Your task to perform on an android device: Go to Google maps Image 0: 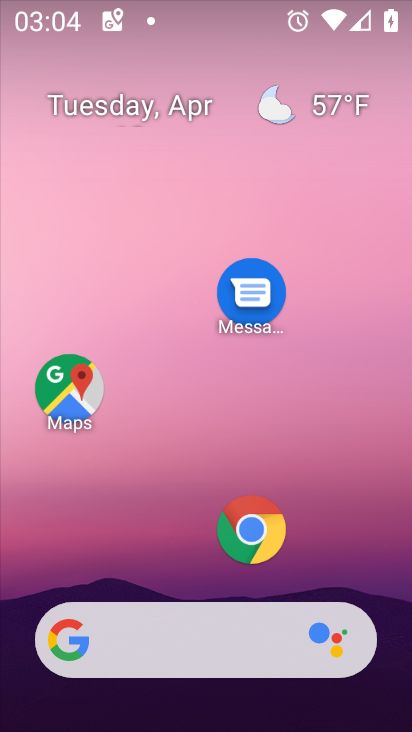
Step 0: drag from (170, 521) to (175, 76)
Your task to perform on an android device: Go to Google maps Image 1: 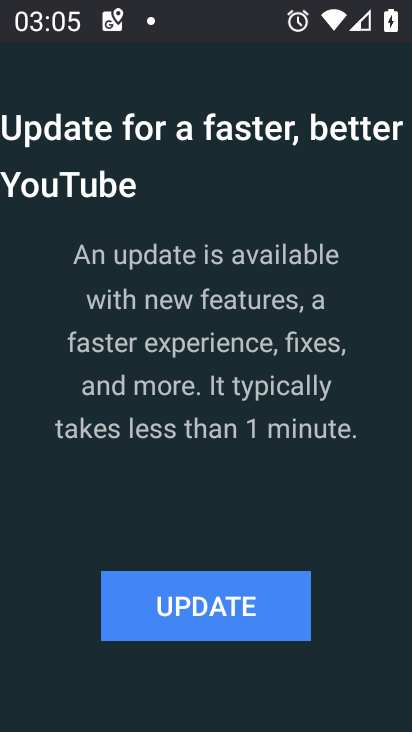
Step 1: press home button
Your task to perform on an android device: Go to Google maps Image 2: 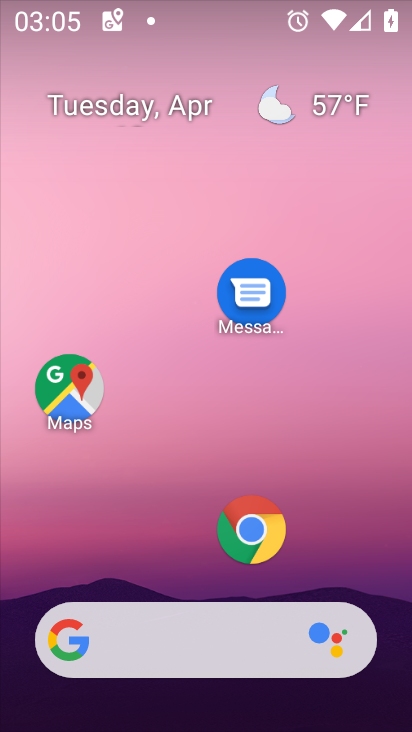
Step 2: click (66, 398)
Your task to perform on an android device: Go to Google maps Image 3: 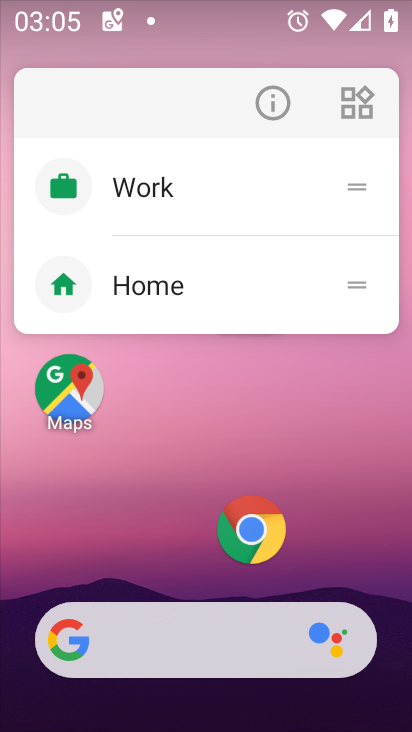
Step 3: click (79, 405)
Your task to perform on an android device: Go to Google maps Image 4: 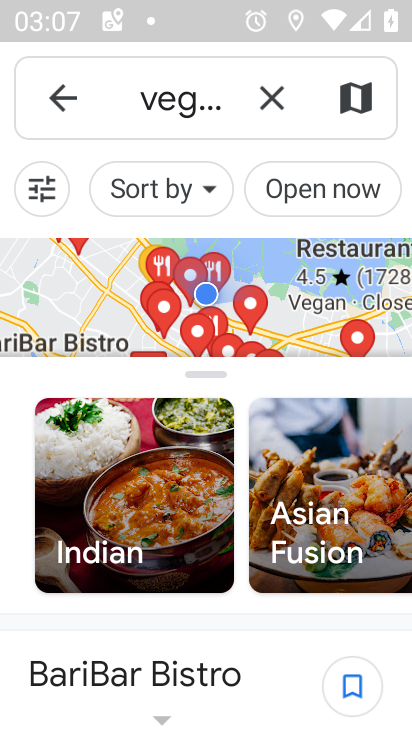
Step 4: task complete